Your task to perform on an android device: install app "Move to iOS" Image 0: 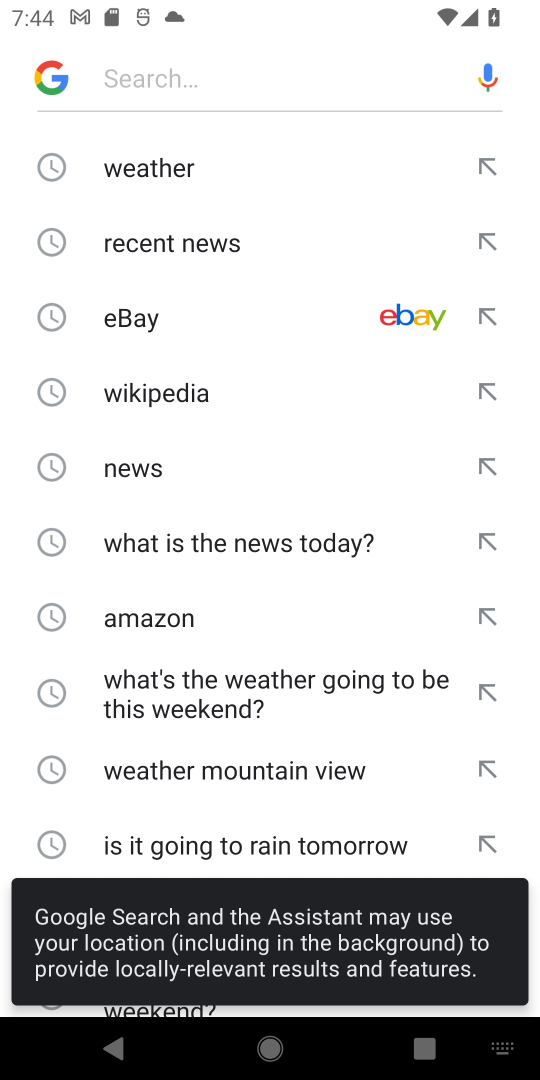
Step 0: press home button
Your task to perform on an android device: install app "Move to iOS" Image 1: 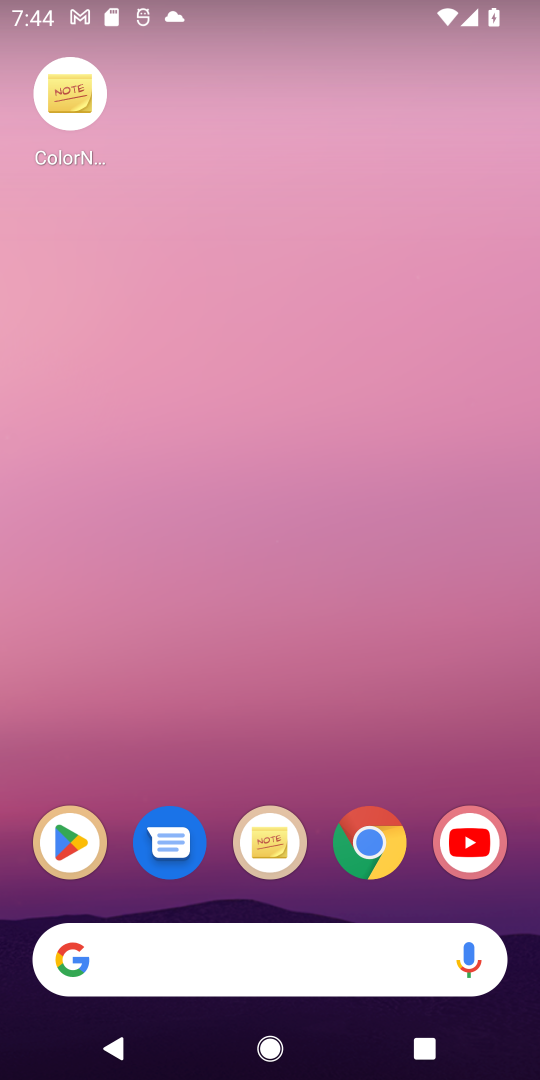
Step 1: click (63, 832)
Your task to perform on an android device: install app "Move to iOS" Image 2: 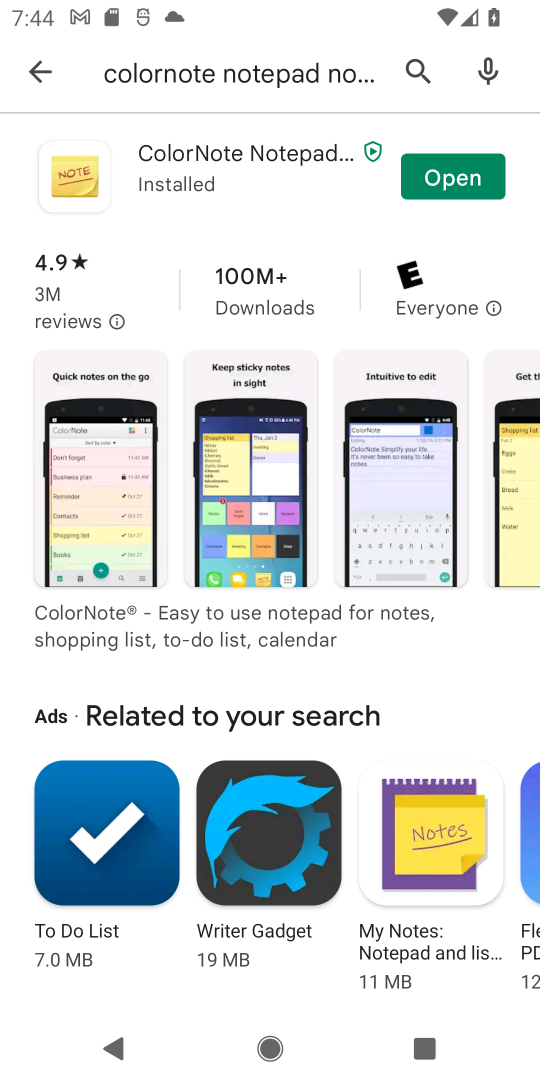
Step 2: click (215, 69)
Your task to perform on an android device: install app "Move to iOS" Image 3: 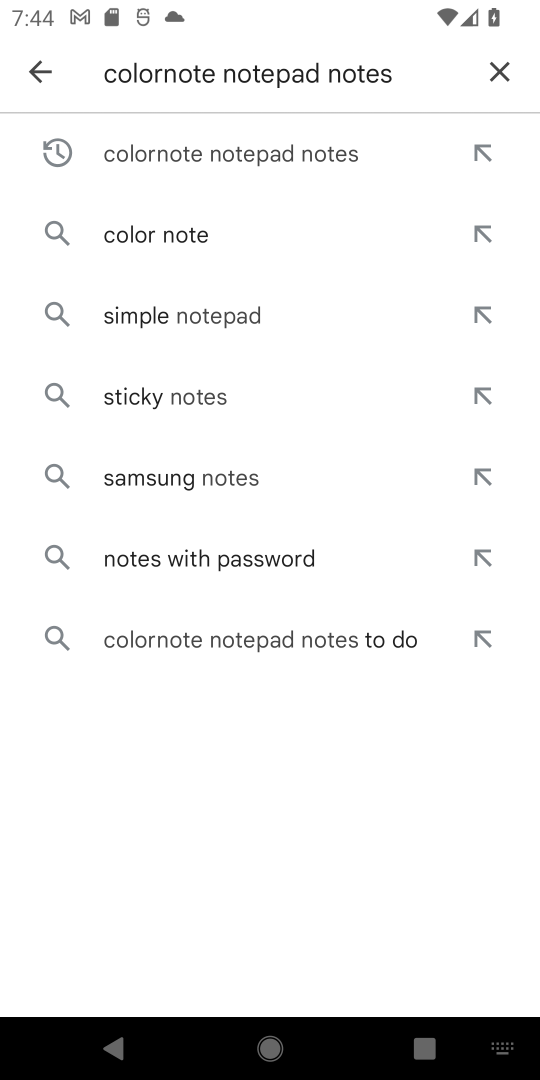
Step 3: click (490, 66)
Your task to perform on an android device: install app "Move to iOS" Image 4: 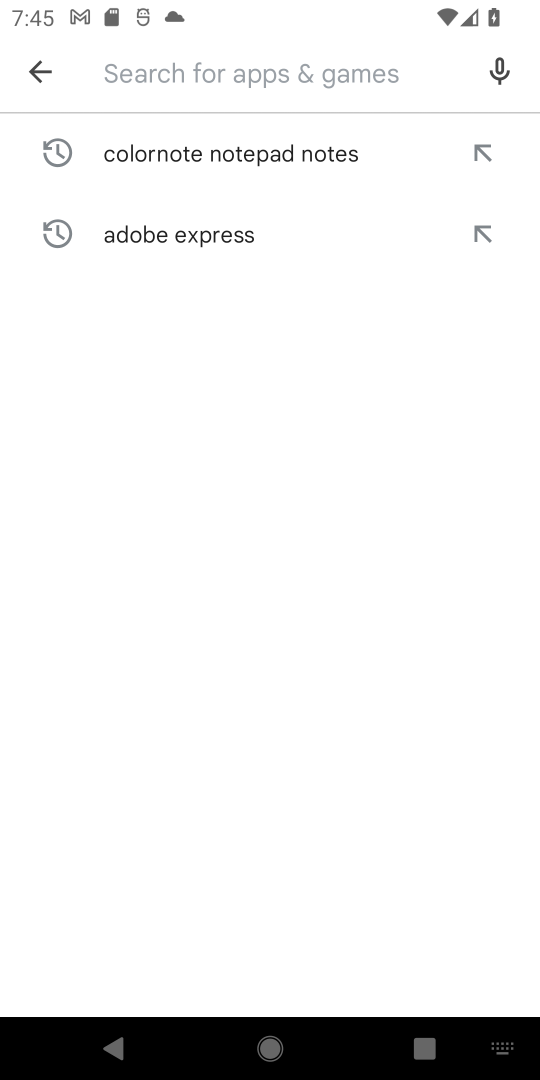
Step 4: type "MOve to IOS"
Your task to perform on an android device: install app "Move to iOS" Image 5: 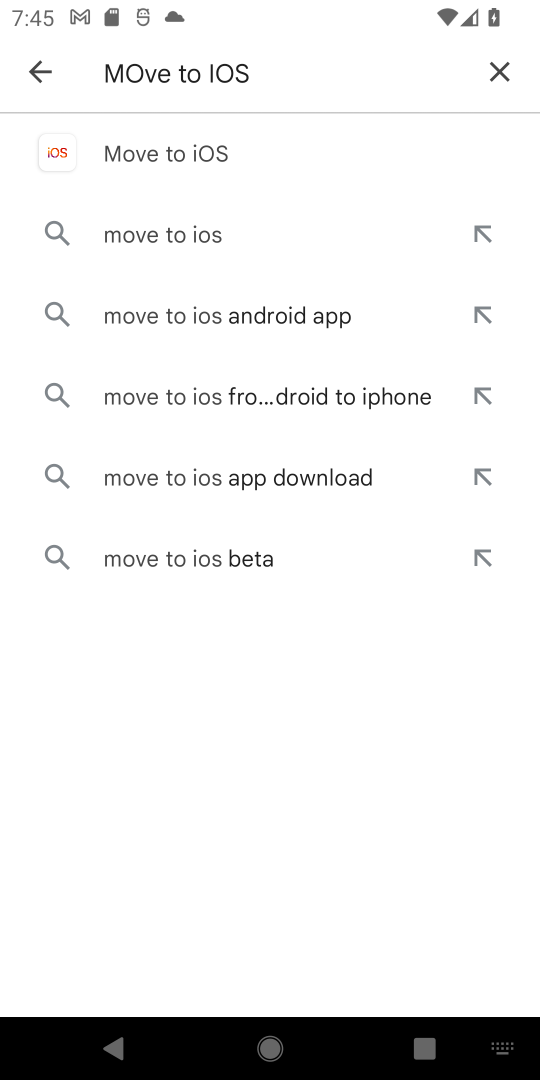
Step 5: click (194, 152)
Your task to perform on an android device: install app "Move to iOS" Image 6: 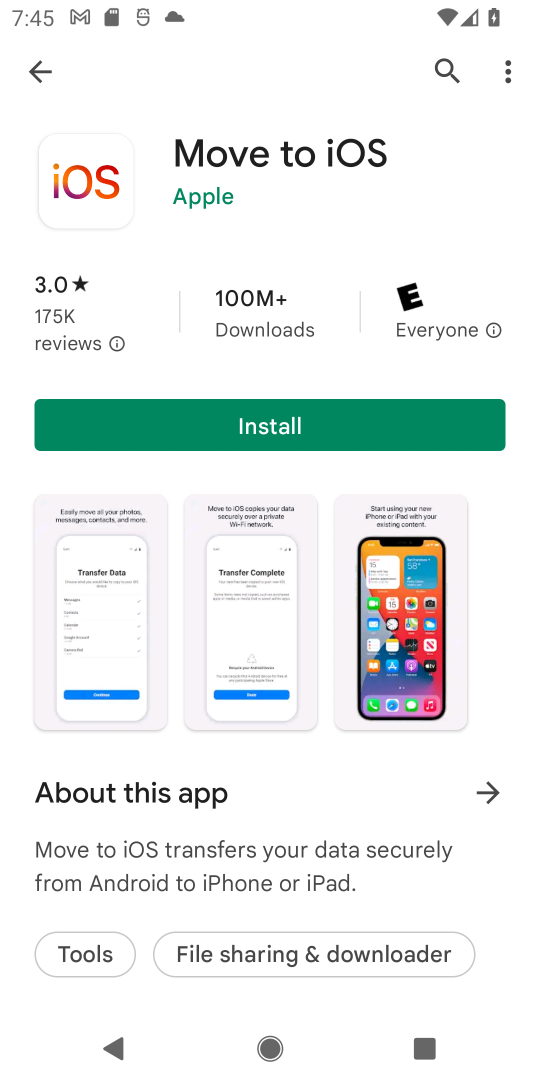
Step 6: click (249, 436)
Your task to perform on an android device: install app "Move to iOS" Image 7: 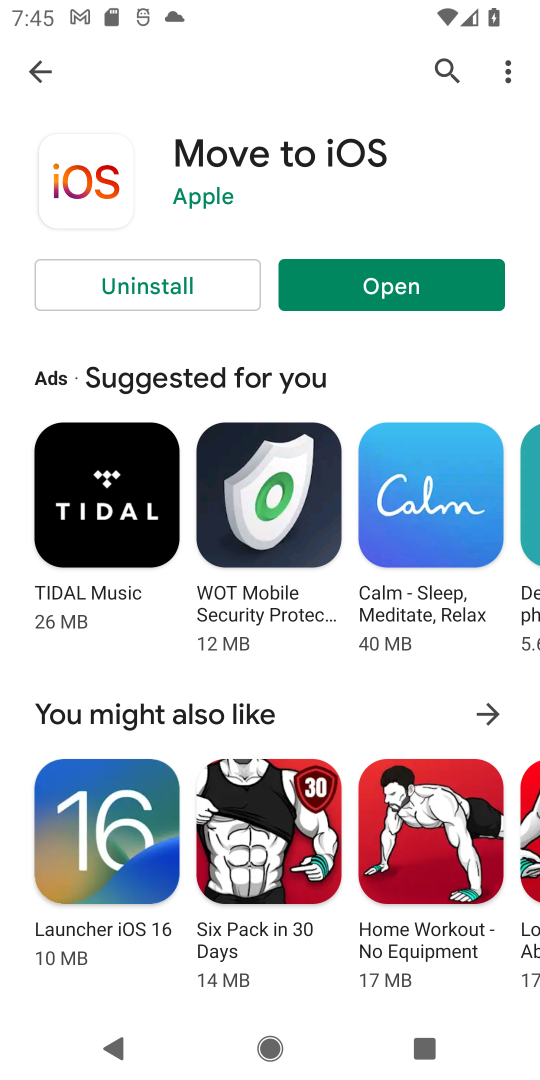
Step 7: task complete